Your task to perform on an android device: change notifications settings Image 0: 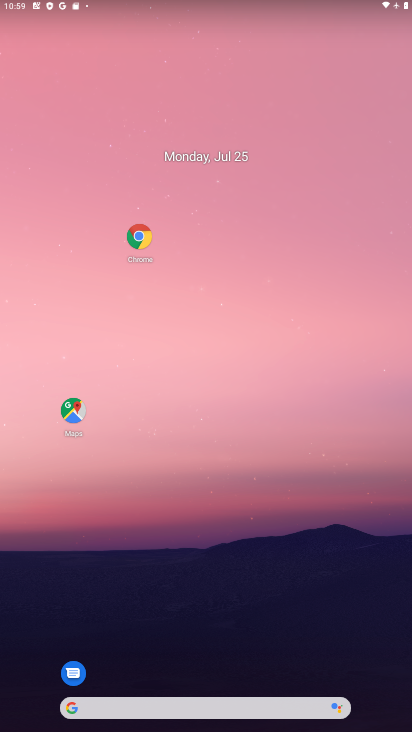
Step 0: drag from (239, 692) to (192, 182)
Your task to perform on an android device: change notifications settings Image 1: 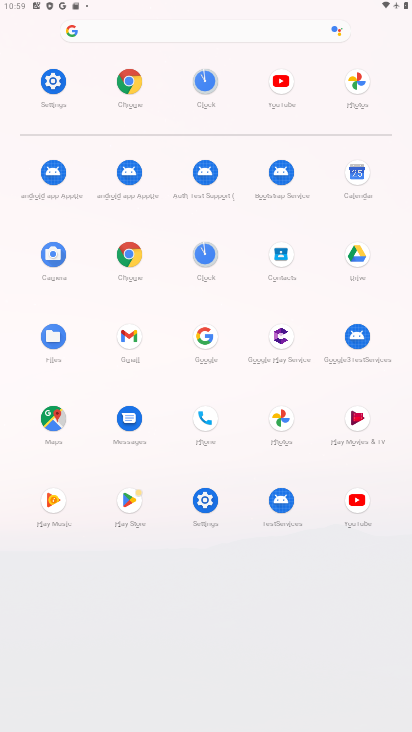
Step 1: click (47, 90)
Your task to perform on an android device: change notifications settings Image 2: 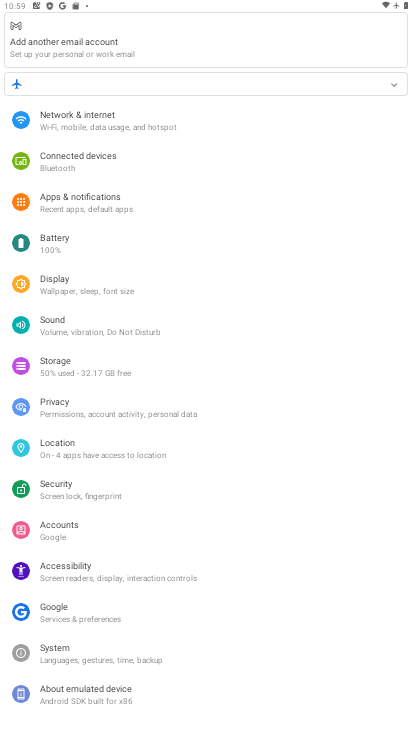
Step 2: click (145, 197)
Your task to perform on an android device: change notifications settings Image 3: 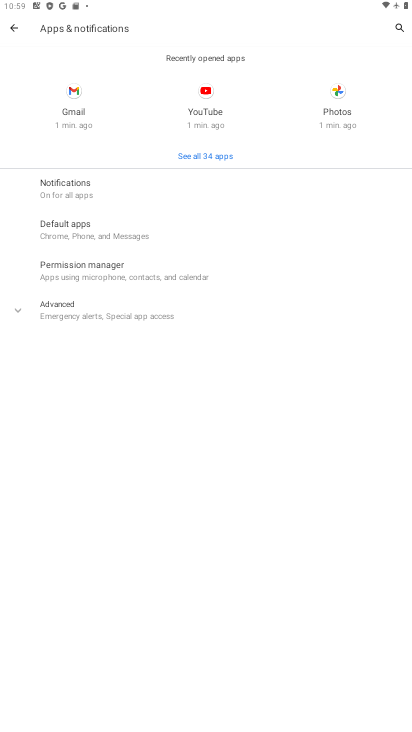
Step 3: click (145, 197)
Your task to perform on an android device: change notifications settings Image 4: 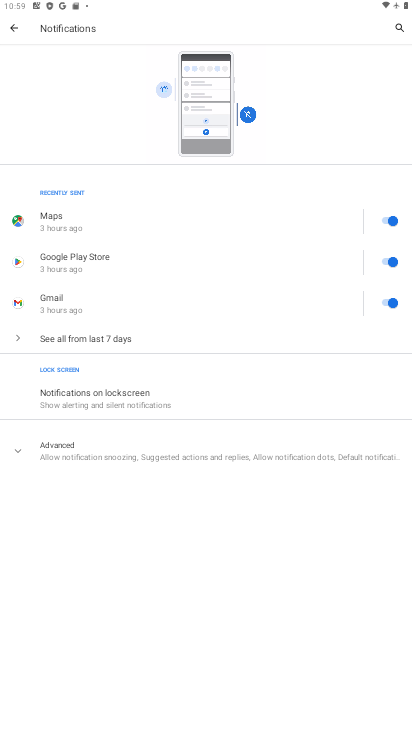
Step 4: click (179, 443)
Your task to perform on an android device: change notifications settings Image 5: 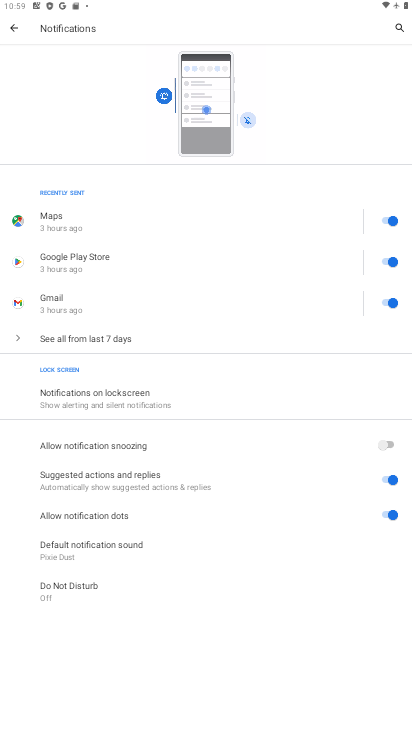
Step 5: task complete